Your task to perform on an android device: check android version Image 0: 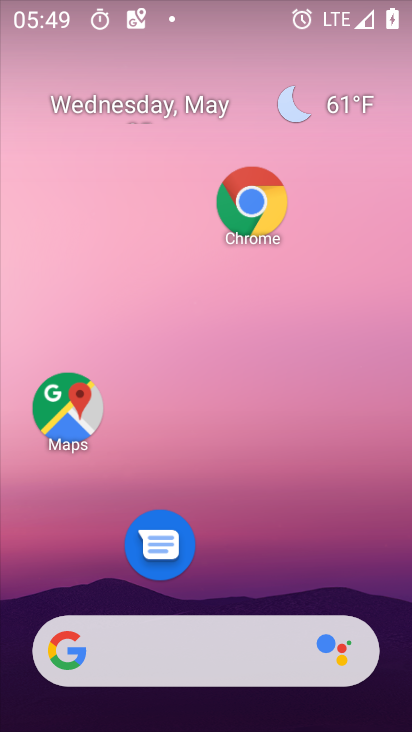
Step 0: drag from (222, 603) to (215, 273)
Your task to perform on an android device: check android version Image 1: 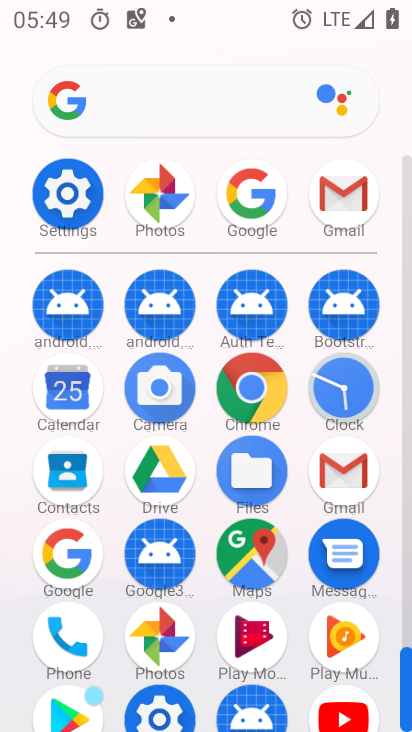
Step 1: click (56, 193)
Your task to perform on an android device: check android version Image 2: 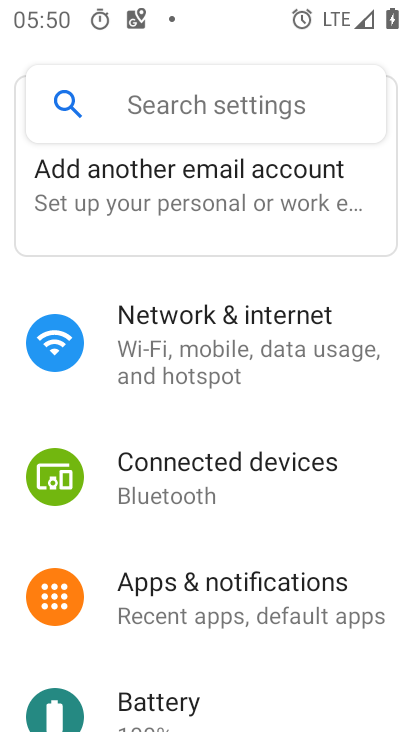
Step 2: drag from (219, 707) to (224, 169)
Your task to perform on an android device: check android version Image 3: 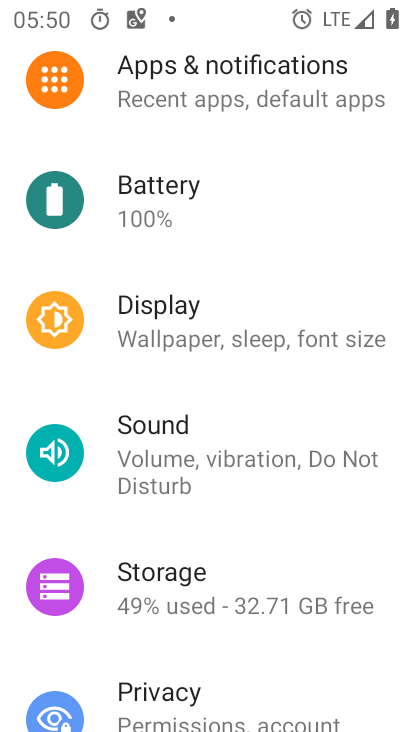
Step 3: drag from (184, 695) to (216, 315)
Your task to perform on an android device: check android version Image 4: 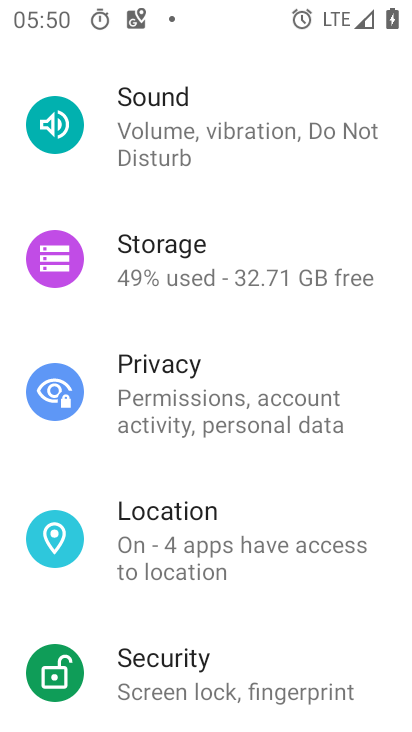
Step 4: drag from (205, 693) to (257, 293)
Your task to perform on an android device: check android version Image 5: 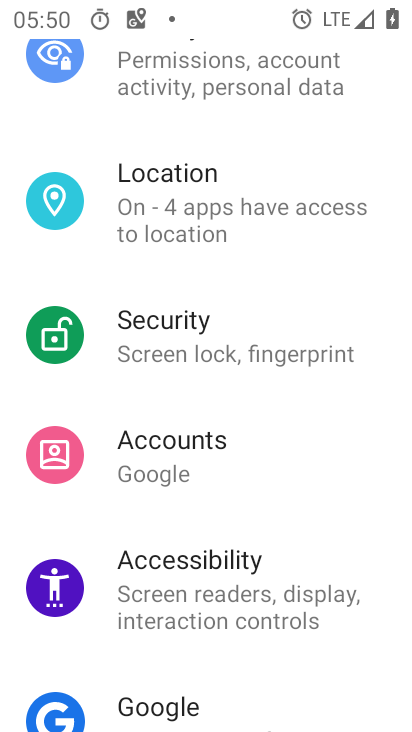
Step 5: drag from (242, 681) to (241, 348)
Your task to perform on an android device: check android version Image 6: 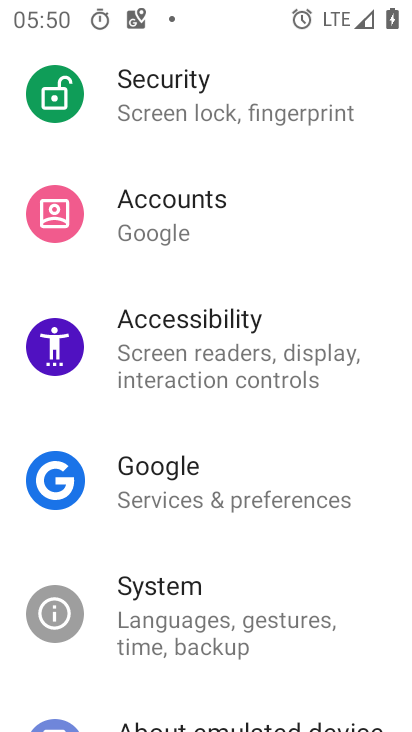
Step 6: drag from (255, 680) to (253, 358)
Your task to perform on an android device: check android version Image 7: 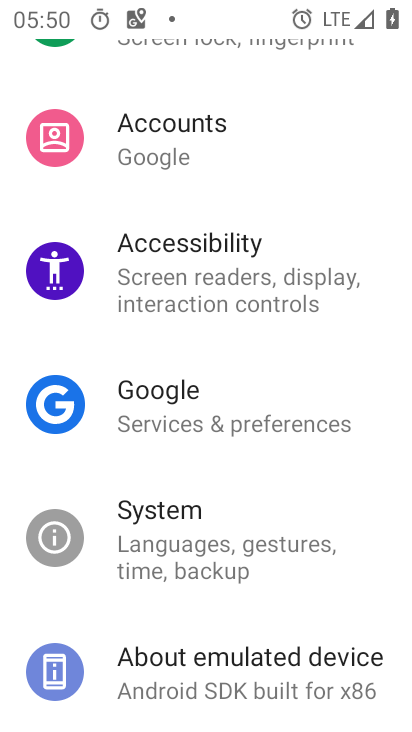
Step 7: click (274, 666)
Your task to perform on an android device: check android version Image 8: 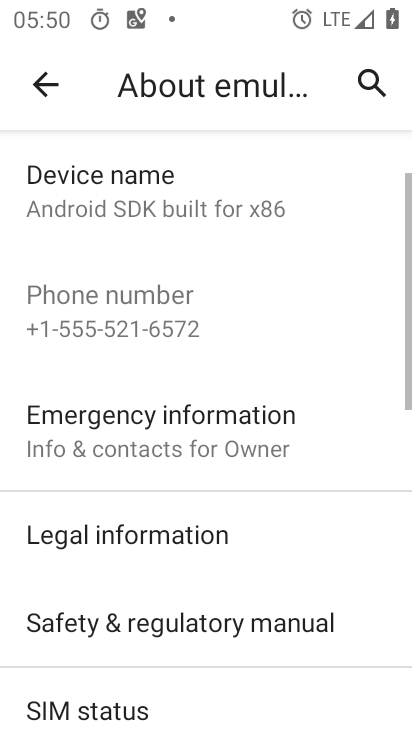
Step 8: task complete